Your task to perform on an android device: change notification settings in the gmail app Image 0: 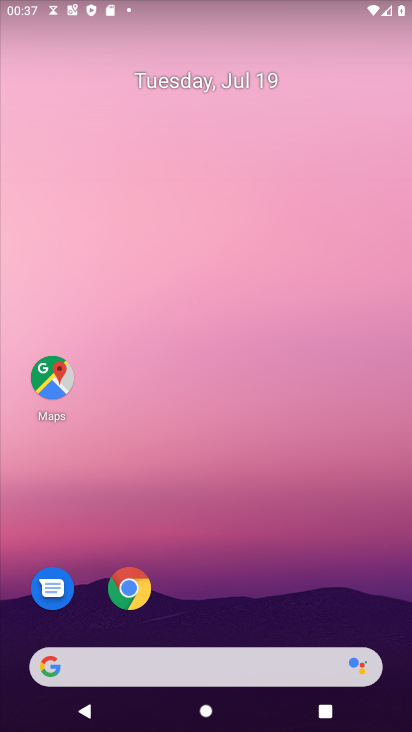
Step 0: press home button
Your task to perform on an android device: change notification settings in the gmail app Image 1: 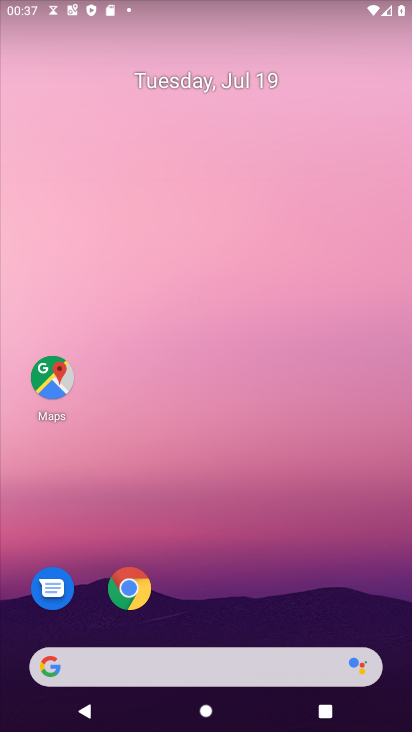
Step 1: drag from (293, 661) to (272, 221)
Your task to perform on an android device: change notification settings in the gmail app Image 2: 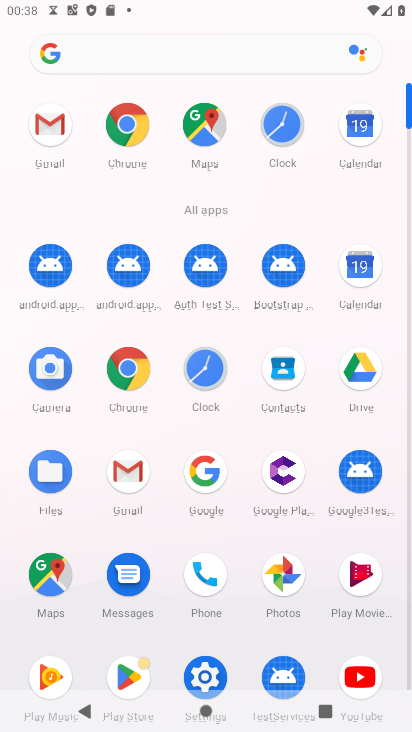
Step 2: click (134, 477)
Your task to perform on an android device: change notification settings in the gmail app Image 3: 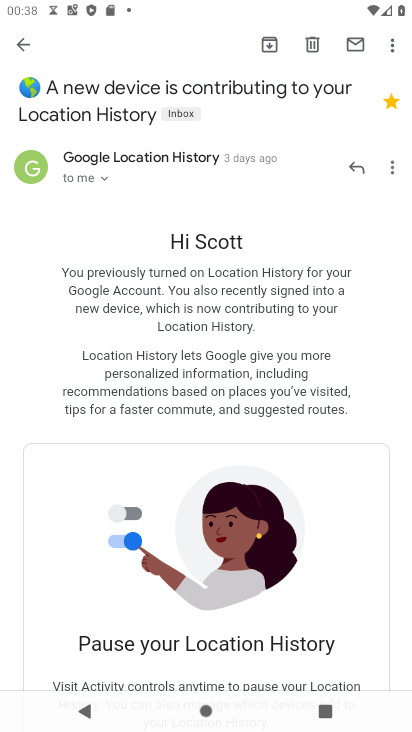
Step 3: click (31, 60)
Your task to perform on an android device: change notification settings in the gmail app Image 4: 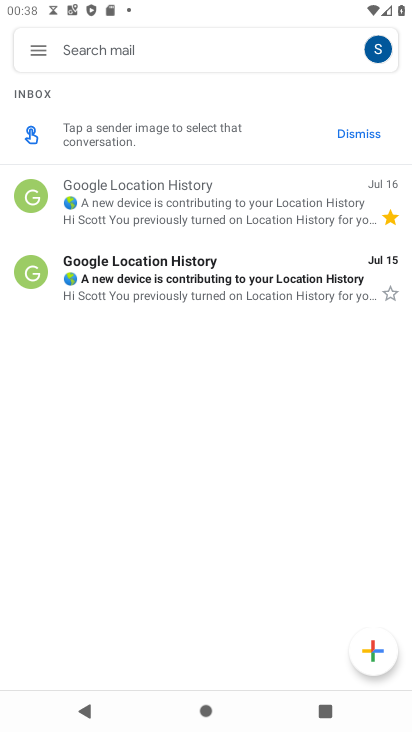
Step 4: click (27, 62)
Your task to perform on an android device: change notification settings in the gmail app Image 5: 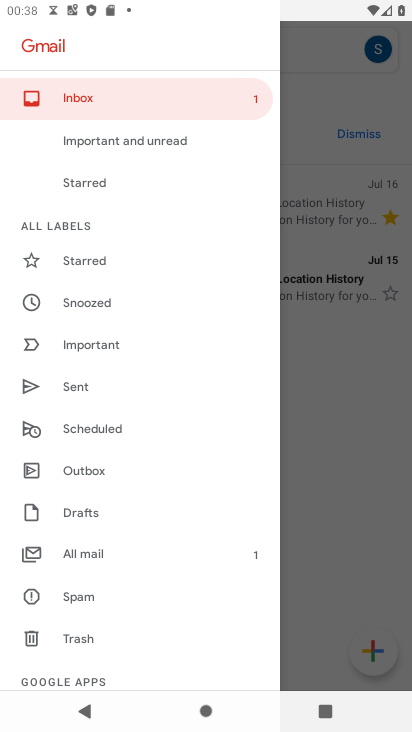
Step 5: drag from (98, 631) to (130, 544)
Your task to perform on an android device: change notification settings in the gmail app Image 6: 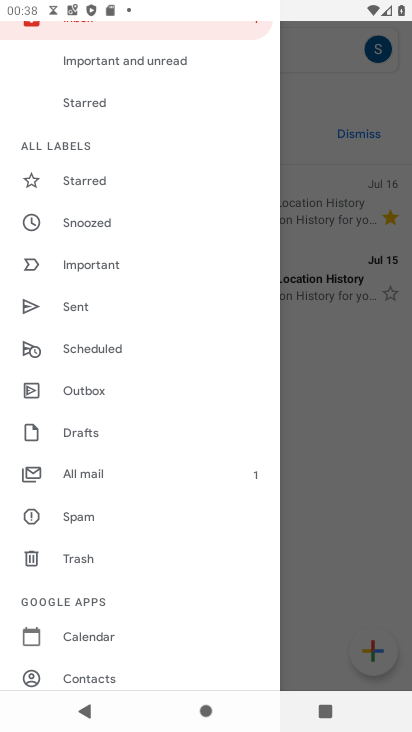
Step 6: drag from (100, 653) to (133, 514)
Your task to perform on an android device: change notification settings in the gmail app Image 7: 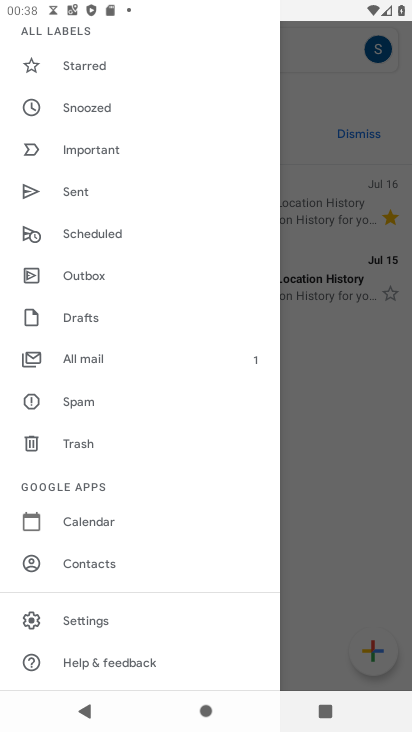
Step 7: click (96, 622)
Your task to perform on an android device: change notification settings in the gmail app Image 8: 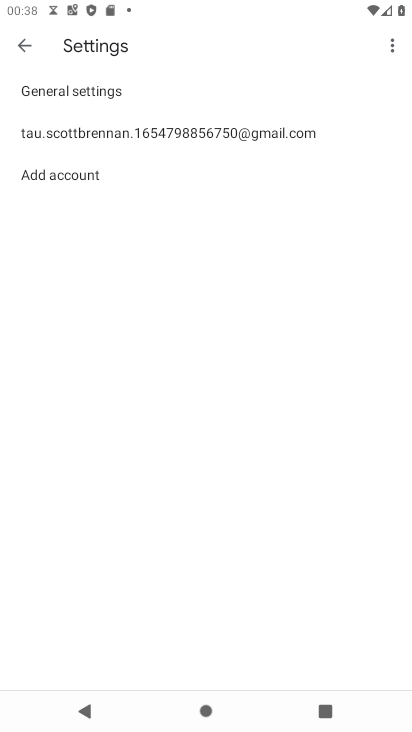
Step 8: click (110, 141)
Your task to perform on an android device: change notification settings in the gmail app Image 9: 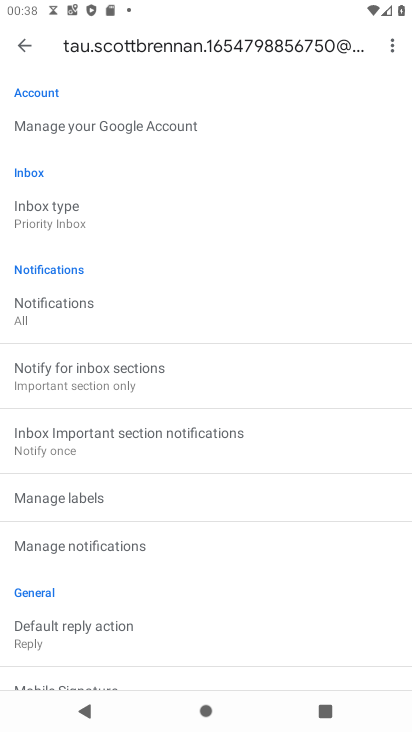
Step 9: click (84, 311)
Your task to perform on an android device: change notification settings in the gmail app Image 10: 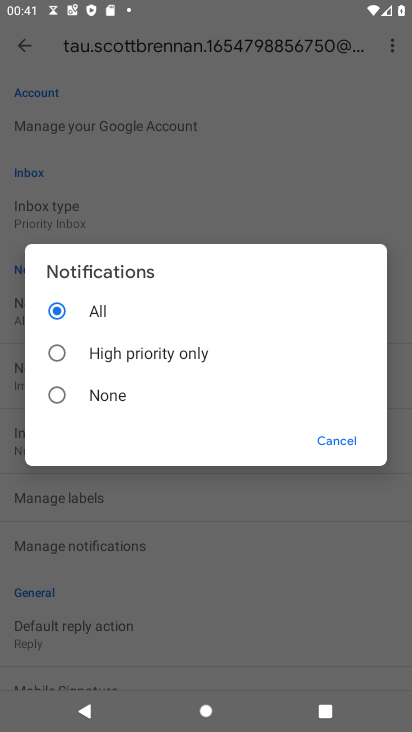
Step 10: task complete